Your task to perform on an android device: allow notifications from all sites in the chrome app Image 0: 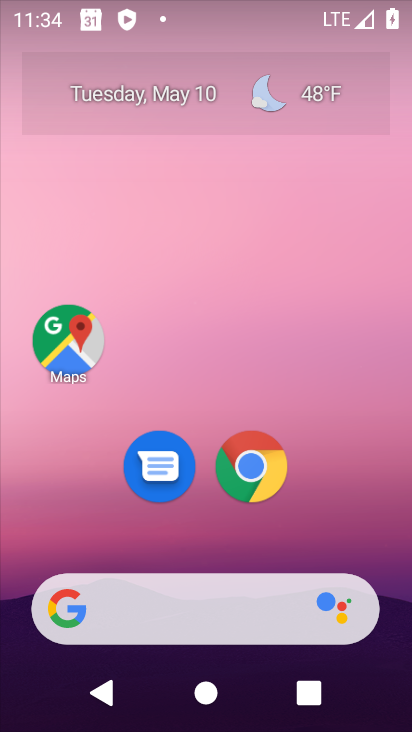
Step 0: drag from (185, 389) to (253, 97)
Your task to perform on an android device: allow notifications from all sites in the chrome app Image 1: 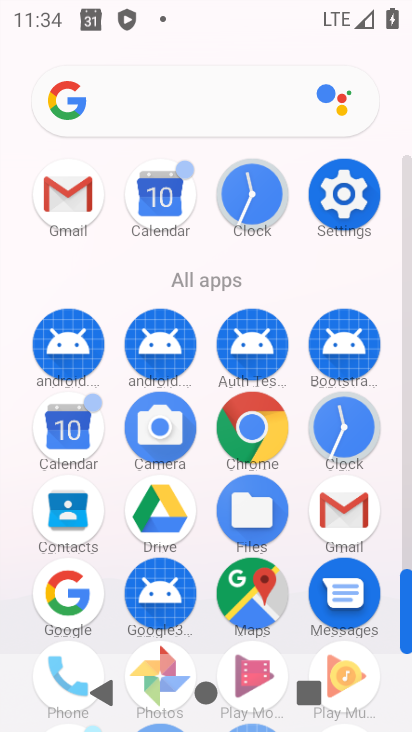
Step 1: click (343, 199)
Your task to perform on an android device: allow notifications from all sites in the chrome app Image 2: 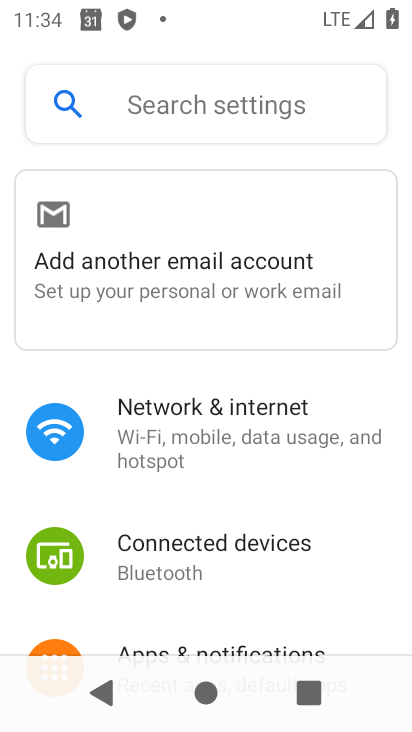
Step 2: press back button
Your task to perform on an android device: allow notifications from all sites in the chrome app Image 3: 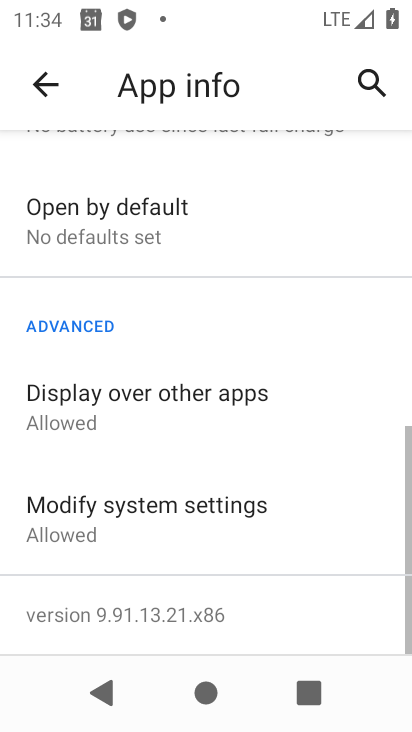
Step 3: press back button
Your task to perform on an android device: allow notifications from all sites in the chrome app Image 4: 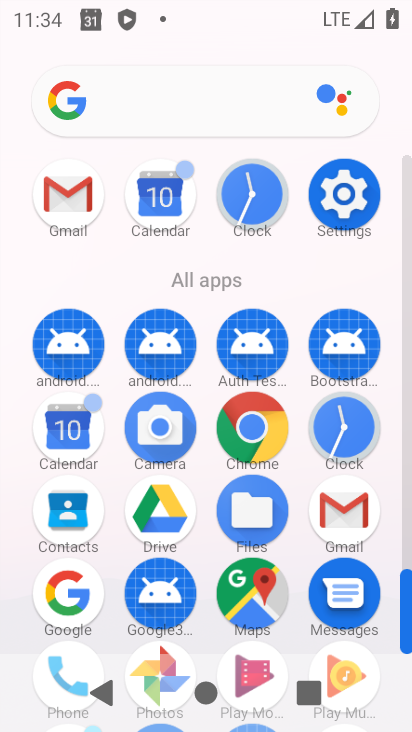
Step 4: click (270, 438)
Your task to perform on an android device: allow notifications from all sites in the chrome app Image 5: 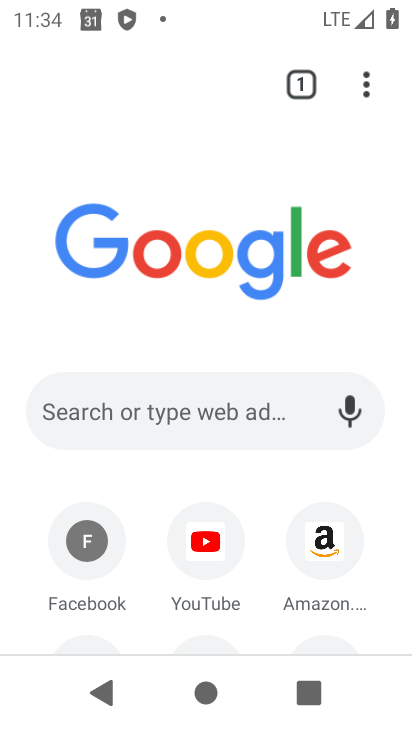
Step 5: click (366, 78)
Your task to perform on an android device: allow notifications from all sites in the chrome app Image 6: 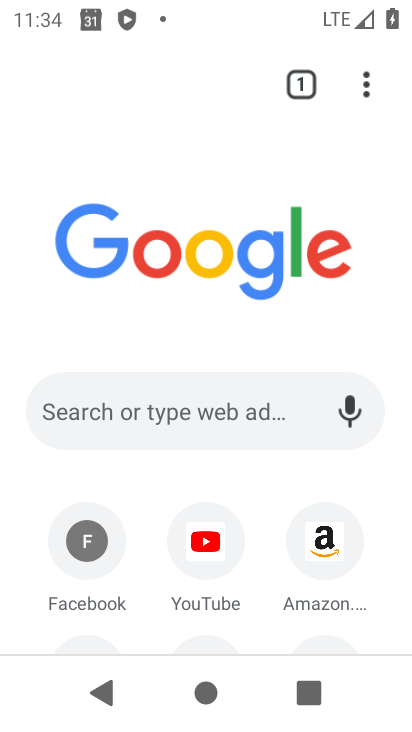
Step 6: drag from (366, 78) to (94, 511)
Your task to perform on an android device: allow notifications from all sites in the chrome app Image 7: 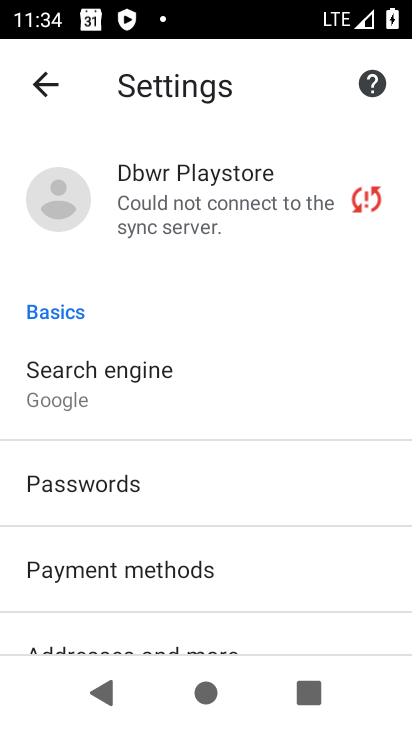
Step 7: drag from (194, 544) to (258, 82)
Your task to perform on an android device: allow notifications from all sites in the chrome app Image 8: 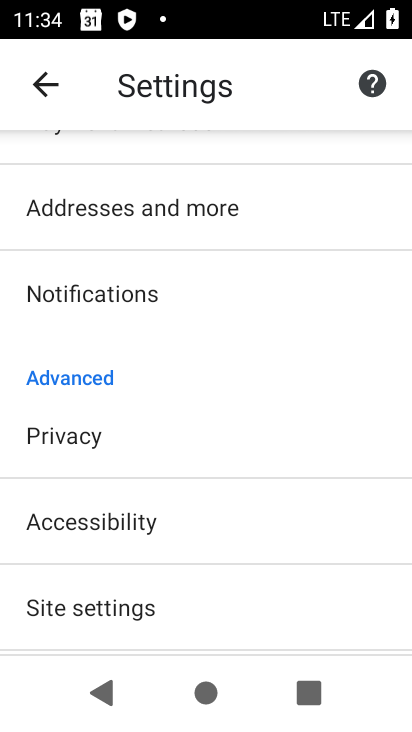
Step 8: click (84, 279)
Your task to perform on an android device: allow notifications from all sites in the chrome app Image 9: 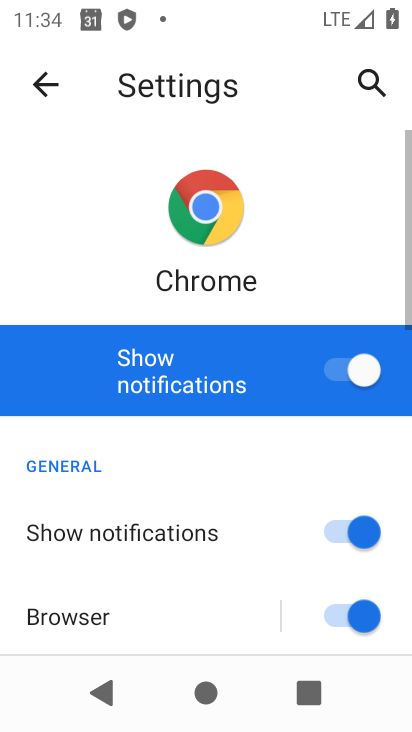
Step 9: task complete